Your task to perform on an android device: delete browsing data in the chrome app Image 0: 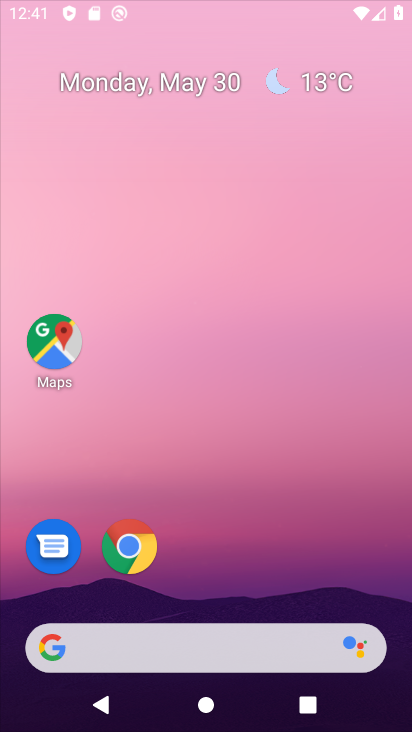
Step 0: press home button
Your task to perform on an android device: delete browsing data in the chrome app Image 1: 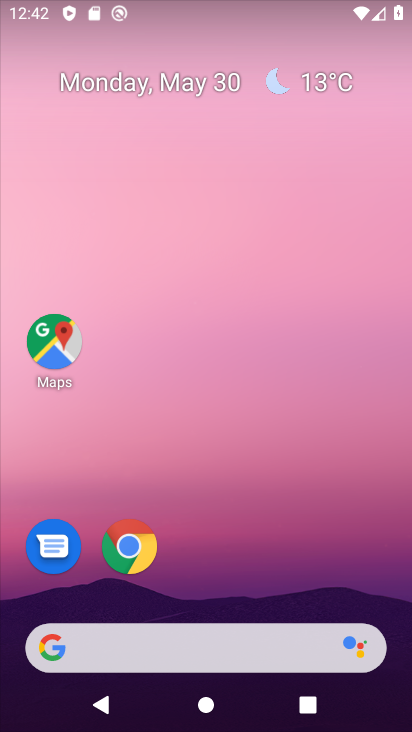
Step 1: press home button
Your task to perform on an android device: delete browsing data in the chrome app Image 2: 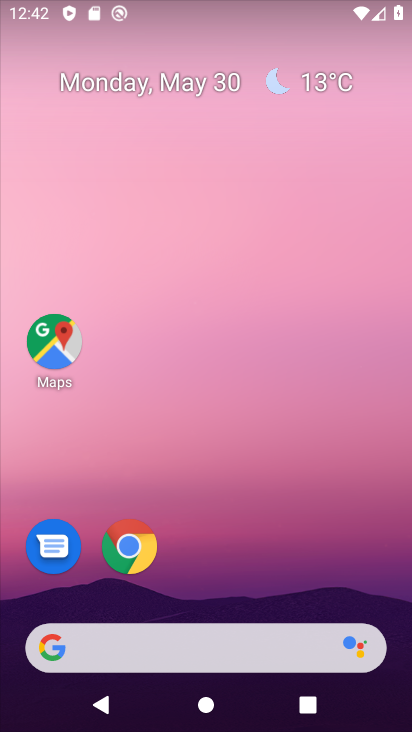
Step 2: click (131, 548)
Your task to perform on an android device: delete browsing data in the chrome app Image 3: 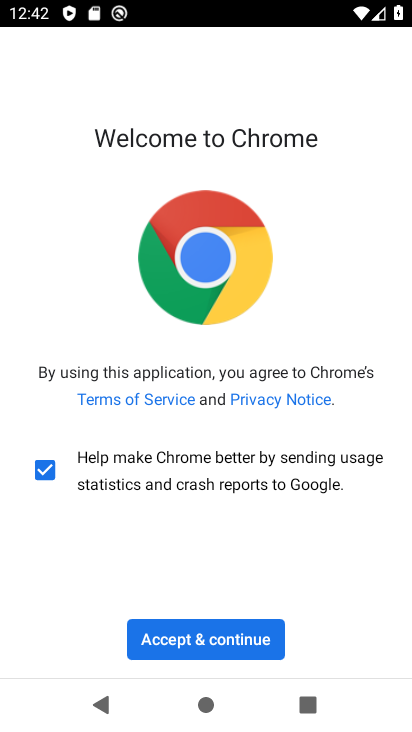
Step 3: click (217, 639)
Your task to perform on an android device: delete browsing data in the chrome app Image 4: 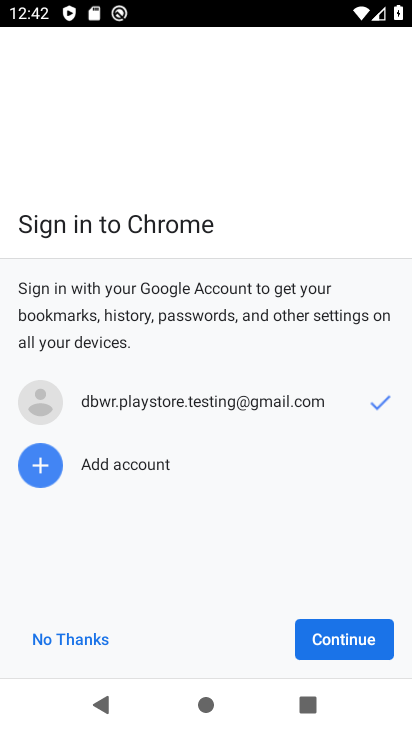
Step 4: click (369, 641)
Your task to perform on an android device: delete browsing data in the chrome app Image 5: 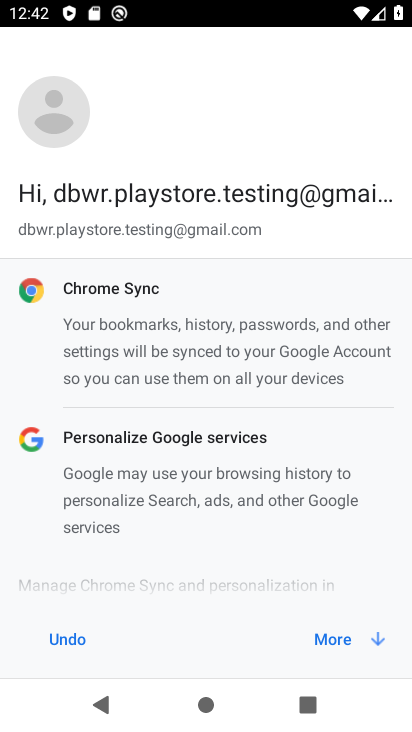
Step 5: click (331, 637)
Your task to perform on an android device: delete browsing data in the chrome app Image 6: 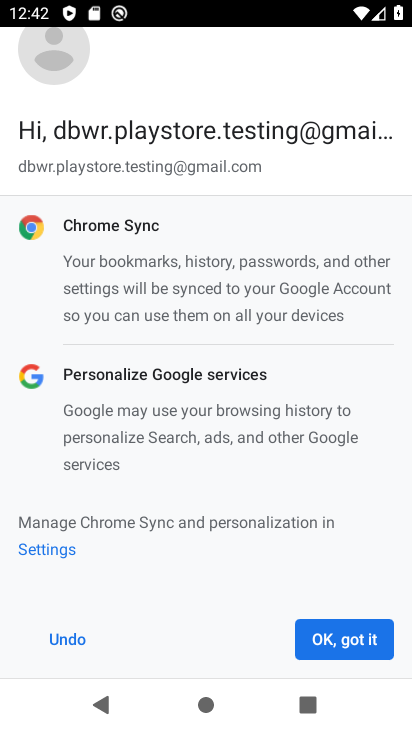
Step 6: click (331, 637)
Your task to perform on an android device: delete browsing data in the chrome app Image 7: 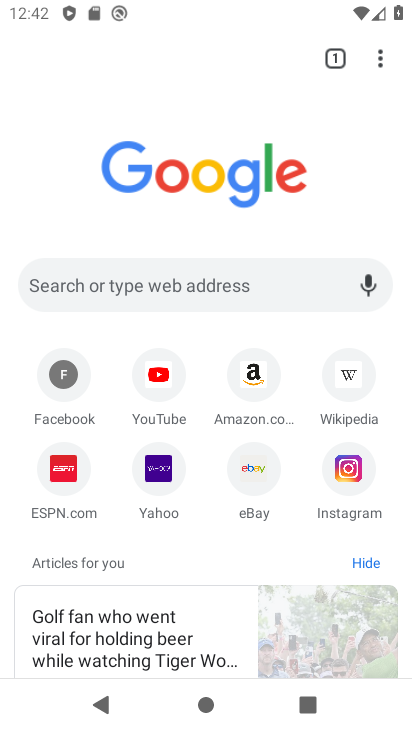
Step 7: drag from (380, 60) to (201, 485)
Your task to perform on an android device: delete browsing data in the chrome app Image 8: 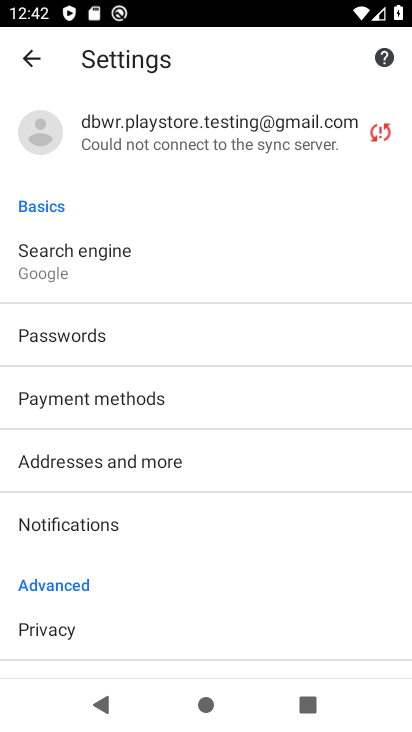
Step 8: click (40, 631)
Your task to perform on an android device: delete browsing data in the chrome app Image 9: 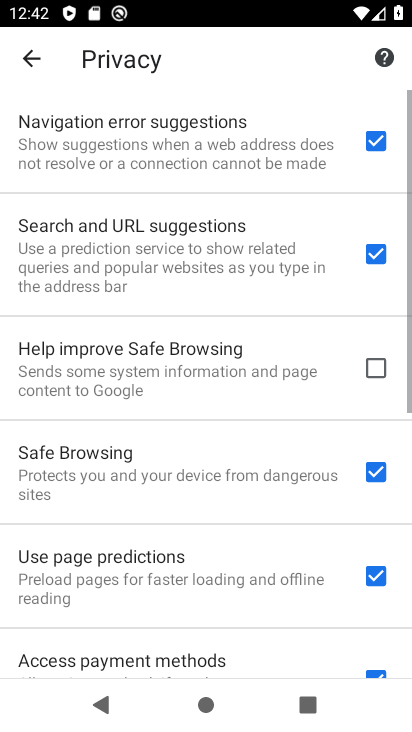
Step 9: drag from (187, 627) to (247, 296)
Your task to perform on an android device: delete browsing data in the chrome app Image 10: 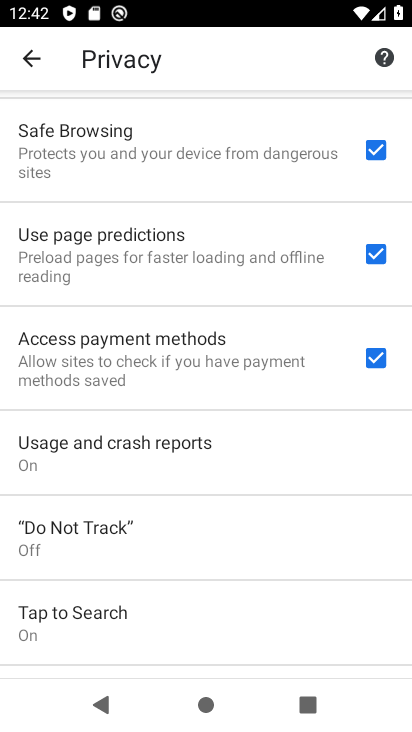
Step 10: drag from (200, 619) to (252, 209)
Your task to perform on an android device: delete browsing data in the chrome app Image 11: 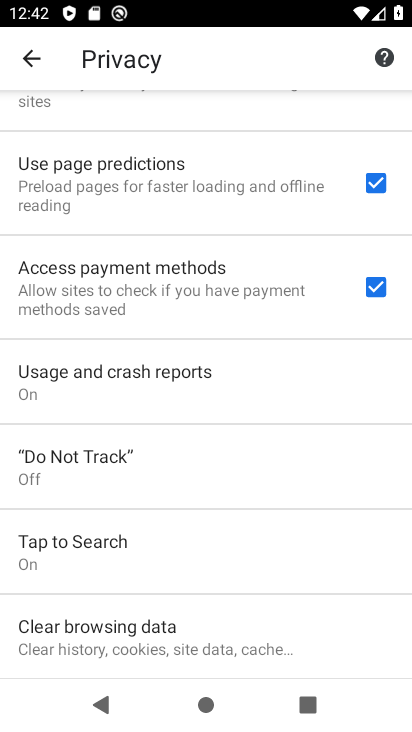
Step 11: click (88, 639)
Your task to perform on an android device: delete browsing data in the chrome app Image 12: 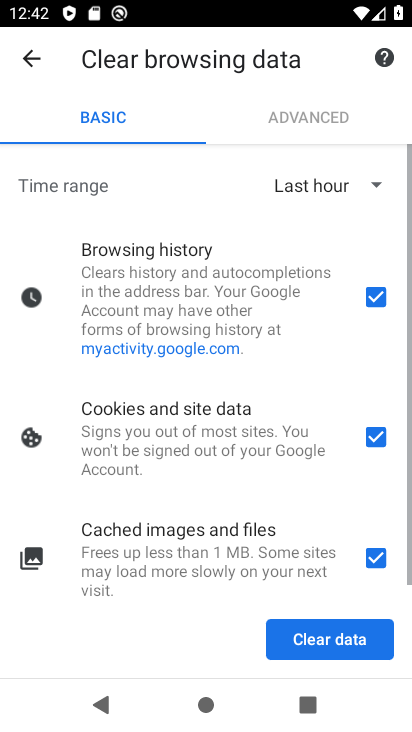
Step 12: click (317, 639)
Your task to perform on an android device: delete browsing data in the chrome app Image 13: 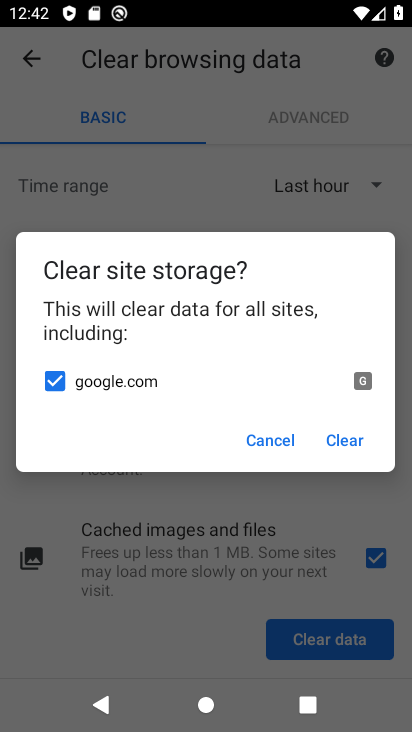
Step 13: click (346, 442)
Your task to perform on an android device: delete browsing data in the chrome app Image 14: 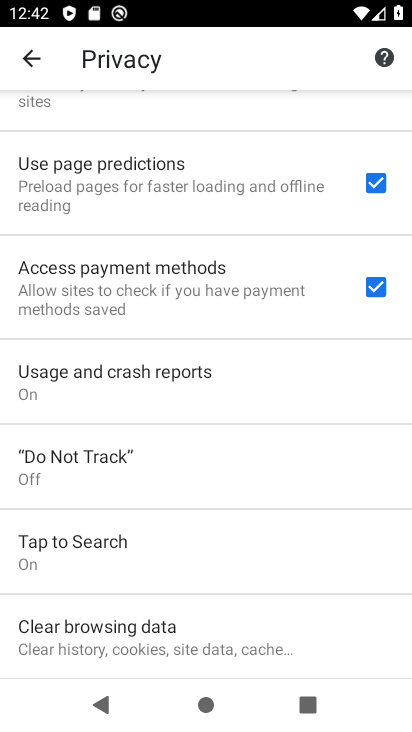
Step 14: task complete